Your task to perform on an android device: open the mobile data screen to see how much data has been used Image 0: 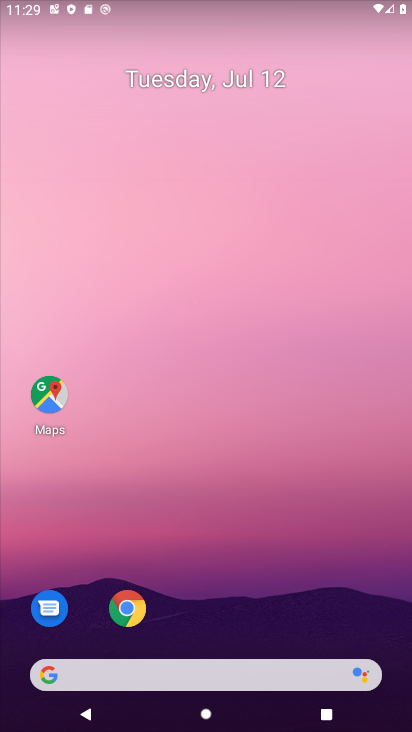
Step 0: drag from (246, 724) to (282, 78)
Your task to perform on an android device: open the mobile data screen to see how much data has been used Image 1: 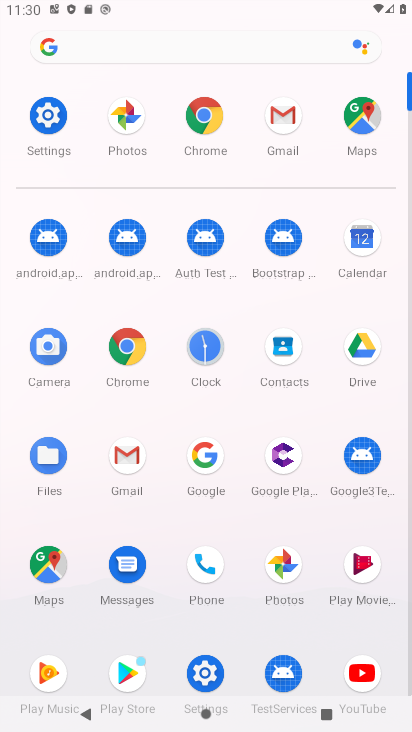
Step 1: click (49, 115)
Your task to perform on an android device: open the mobile data screen to see how much data has been used Image 2: 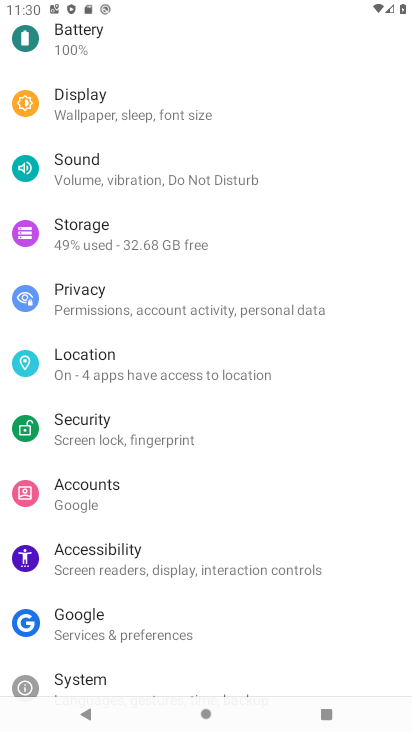
Step 2: drag from (117, 111) to (147, 444)
Your task to perform on an android device: open the mobile data screen to see how much data has been used Image 3: 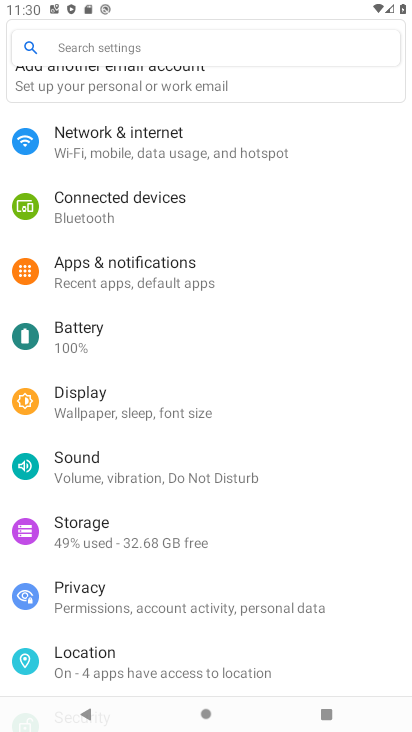
Step 3: click (115, 133)
Your task to perform on an android device: open the mobile data screen to see how much data has been used Image 4: 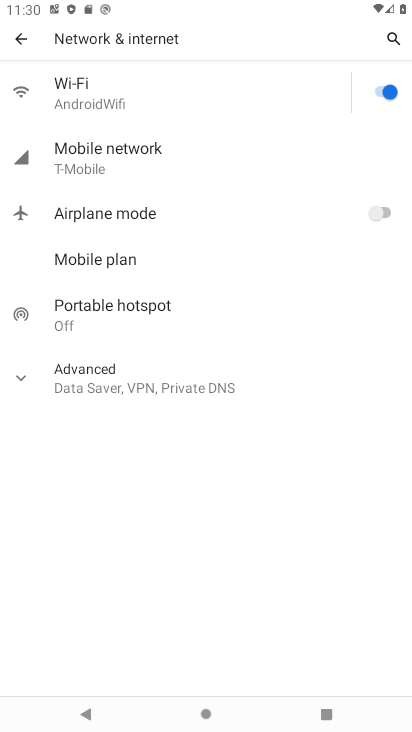
Step 4: click (88, 148)
Your task to perform on an android device: open the mobile data screen to see how much data has been used Image 5: 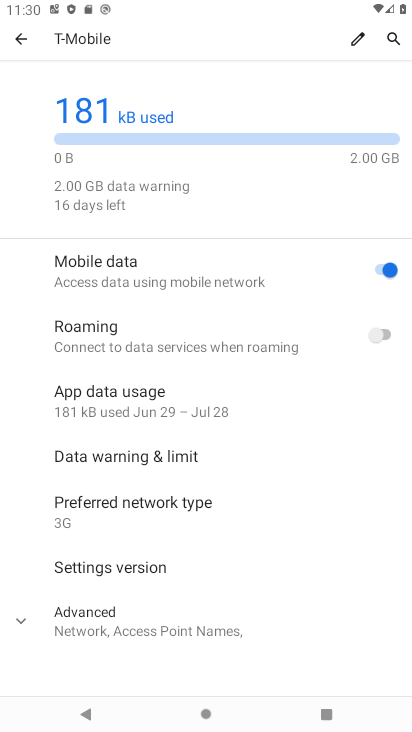
Step 5: click (128, 400)
Your task to perform on an android device: open the mobile data screen to see how much data has been used Image 6: 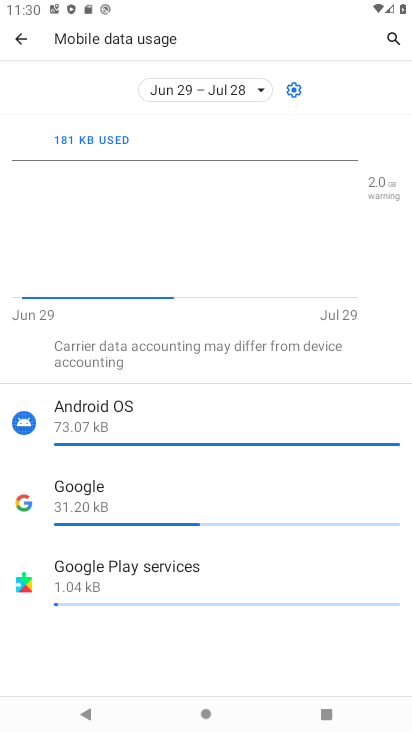
Step 6: task complete